Your task to perform on an android device: turn off picture-in-picture Image 0: 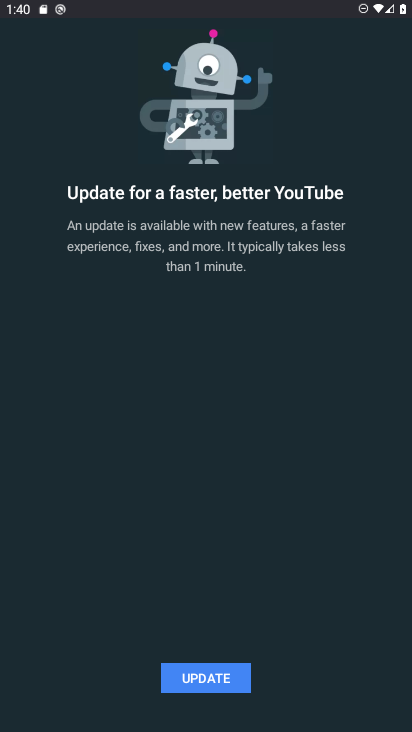
Step 0: drag from (327, 568) to (317, 285)
Your task to perform on an android device: turn off picture-in-picture Image 1: 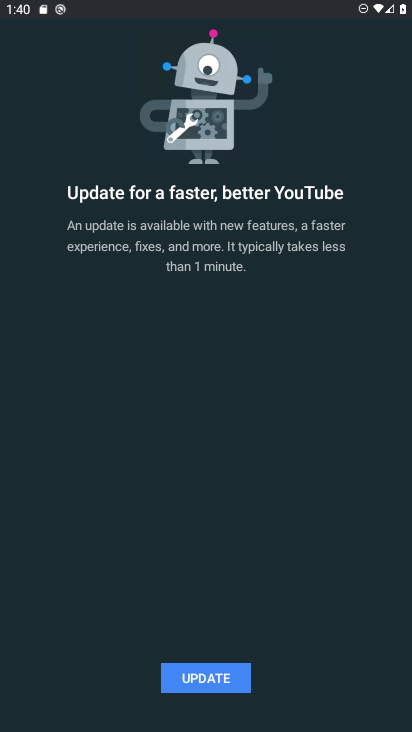
Step 1: click (208, 676)
Your task to perform on an android device: turn off picture-in-picture Image 2: 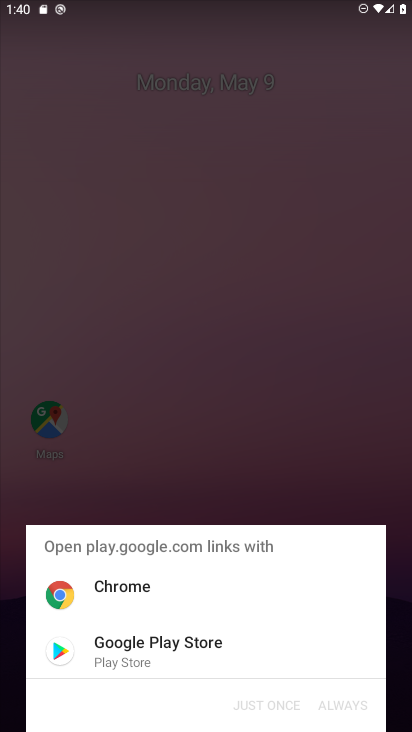
Step 2: click (287, 466)
Your task to perform on an android device: turn off picture-in-picture Image 3: 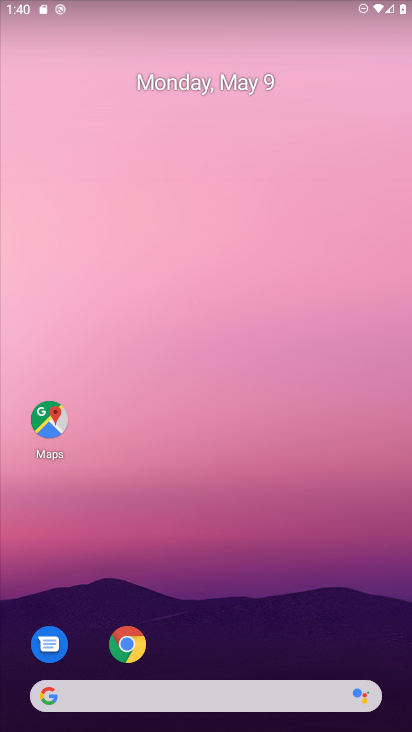
Step 3: drag from (178, 553) to (84, 58)
Your task to perform on an android device: turn off picture-in-picture Image 4: 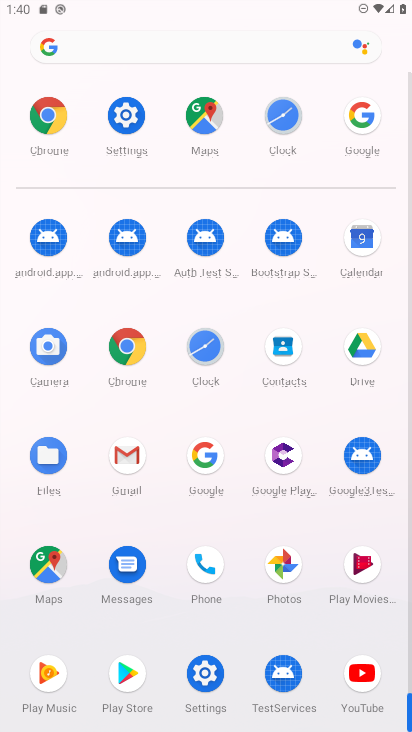
Step 4: click (136, 121)
Your task to perform on an android device: turn off picture-in-picture Image 5: 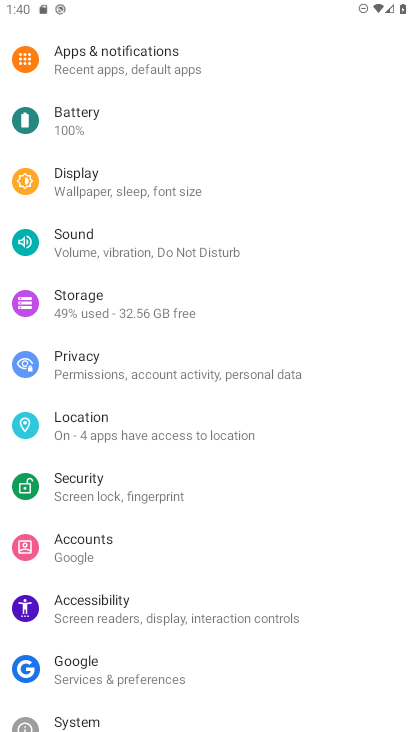
Step 5: click (102, 72)
Your task to perform on an android device: turn off picture-in-picture Image 6: 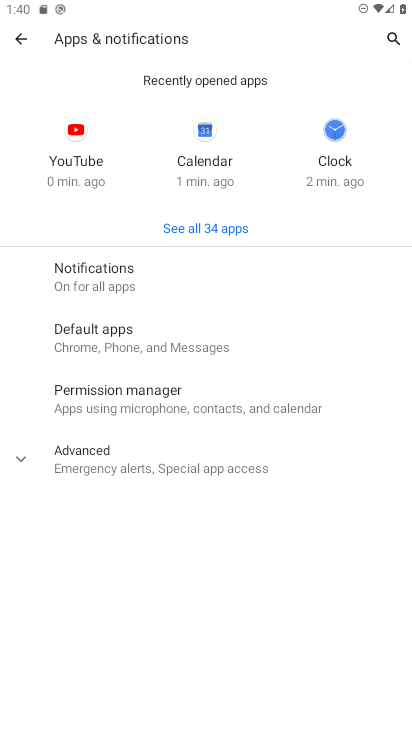
Step 6: click (102, 465)
Your task to perform on an android device: turn off picture-in-picture Image 7: 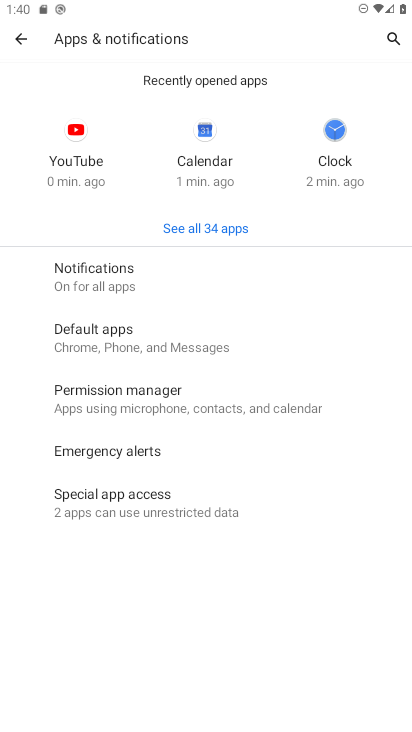
Step 7: click (108, 515)
Your task to perform on an android device: turn off picture-in-picture Image 8: 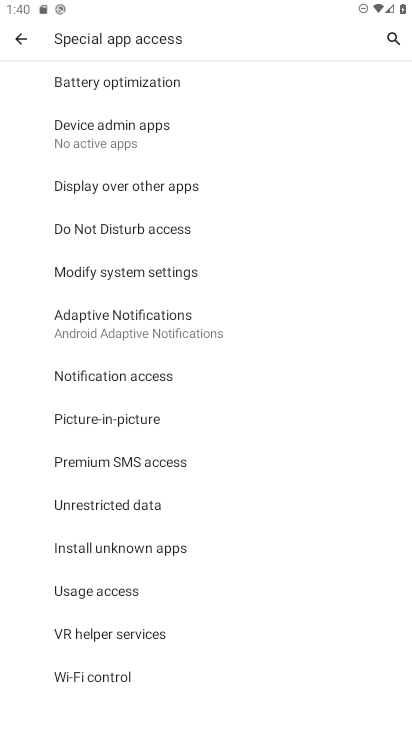
Step 8: click (112, 425)
Your task to perform on an android device: turn off picture-in-picture Image 9: 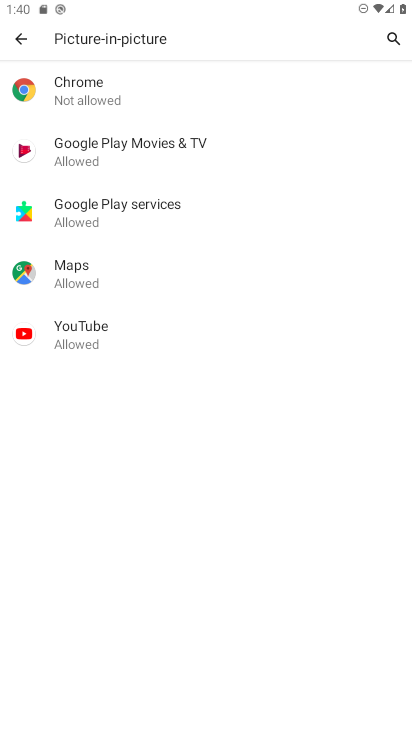
Step 9: click (75, 81)
Your task to perform on an android device: turn off picture-in-picture Image 10: 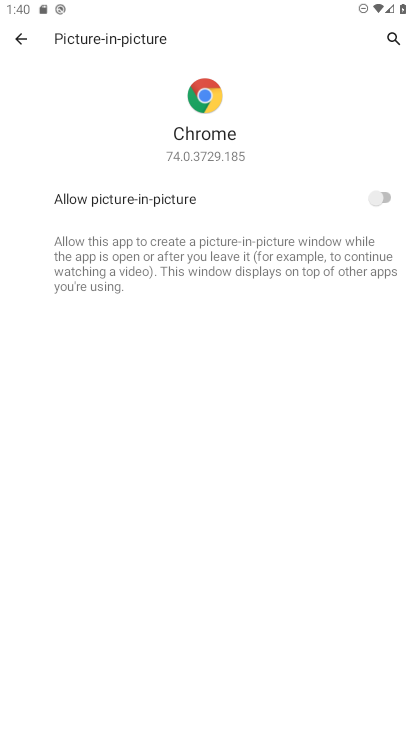
Step 10: task complete